Your task to perform on an android device: open the mobile data screen to see how much data has been used Image 0: 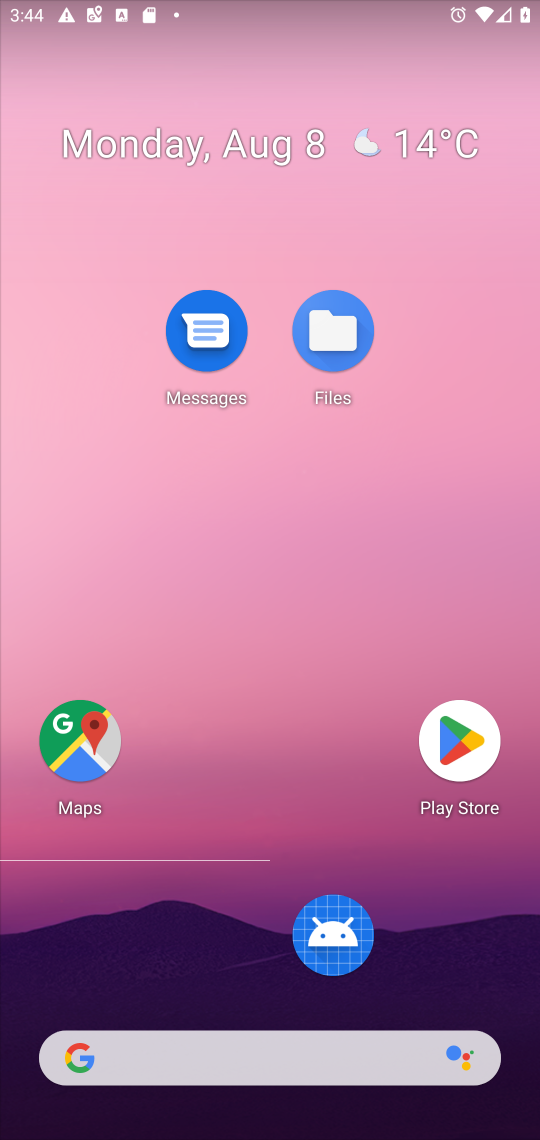
Step 0: drag from (332, 1049) to (188, 14)
Your task to perform on an android device: open the mobile data screen to see how much data has been used Image 1: 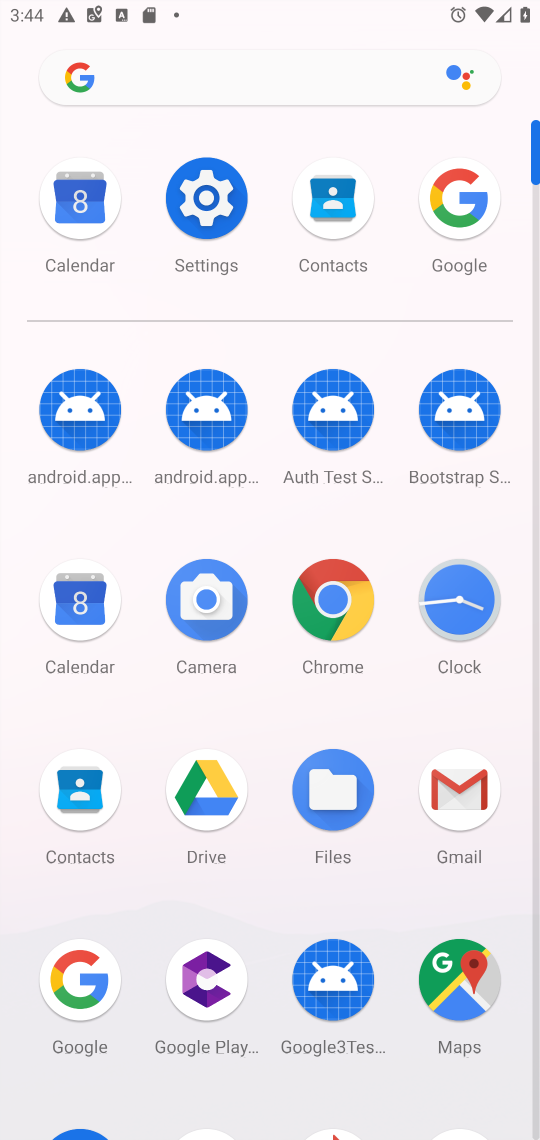
Step 1: click (224, 215)
Your task to perform on an android device: open the mobile data screen to see how much data has been used Image 2: 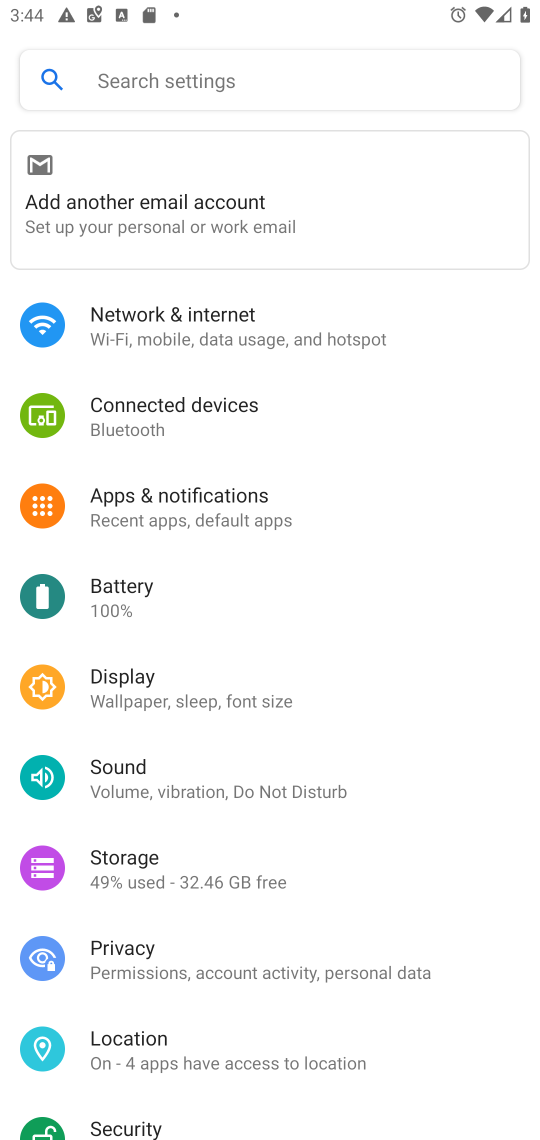
Step 2: click (233, 343)
Your task to perform on an android device: open the mobile data screen to see how much data has been used Image 3: 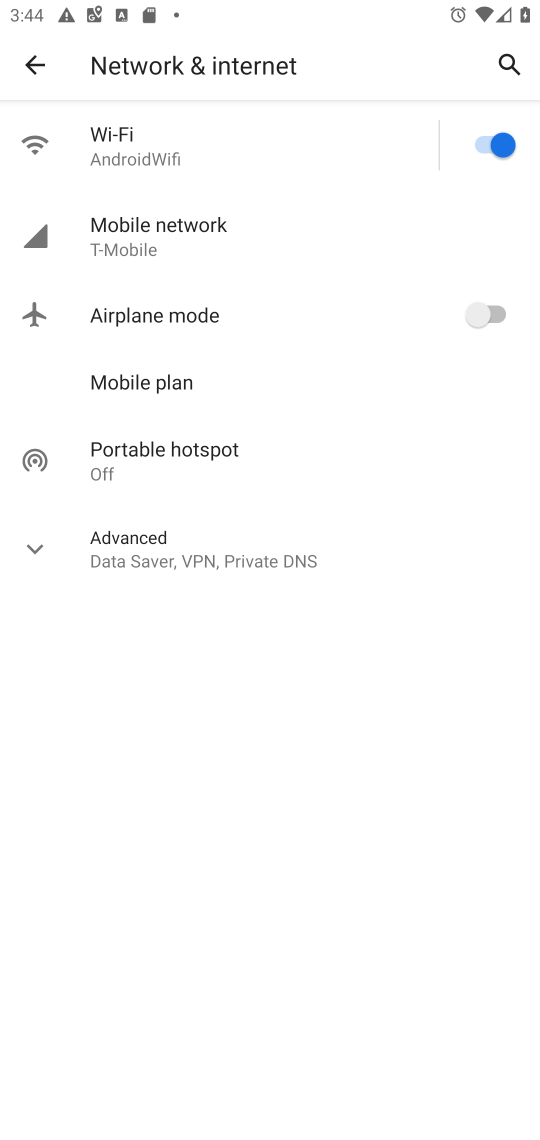
Step 3: click (157, 248)
Your task to perform on an android device: open the mobile data screen to see how much data has been used Image 4: 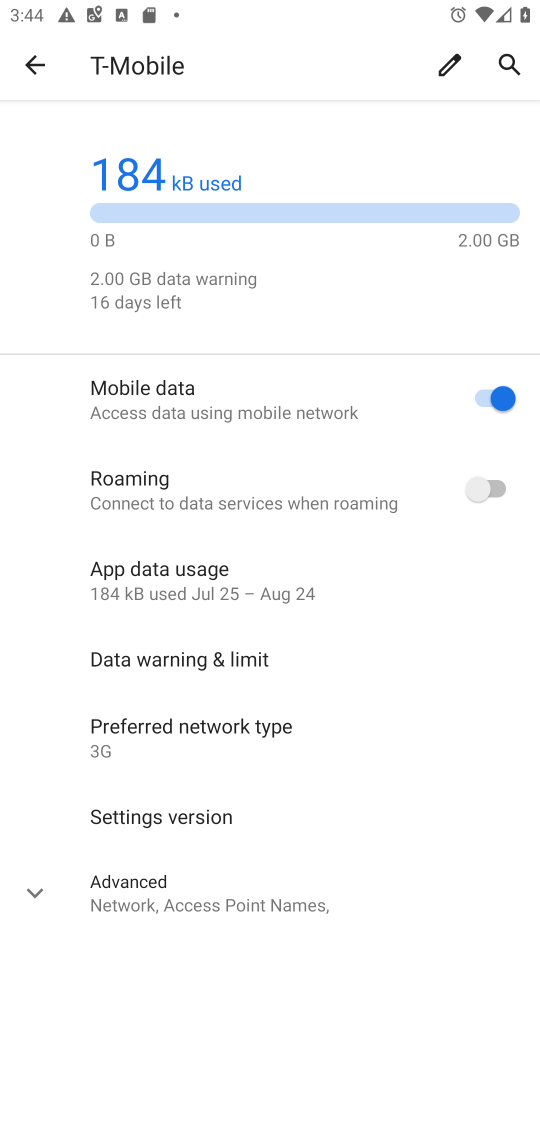
Step 4: task complete